Your task to perform on an android device: change keyboard looks Image 0: 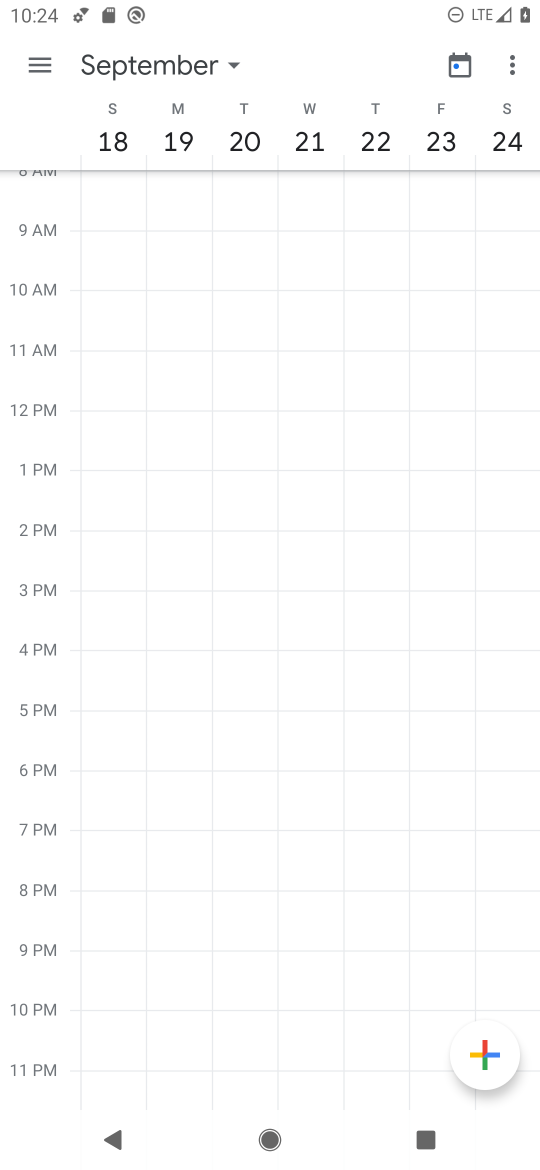
Step 0: press home button
Your task to perform on an android device: change keyboard looks Image 1: 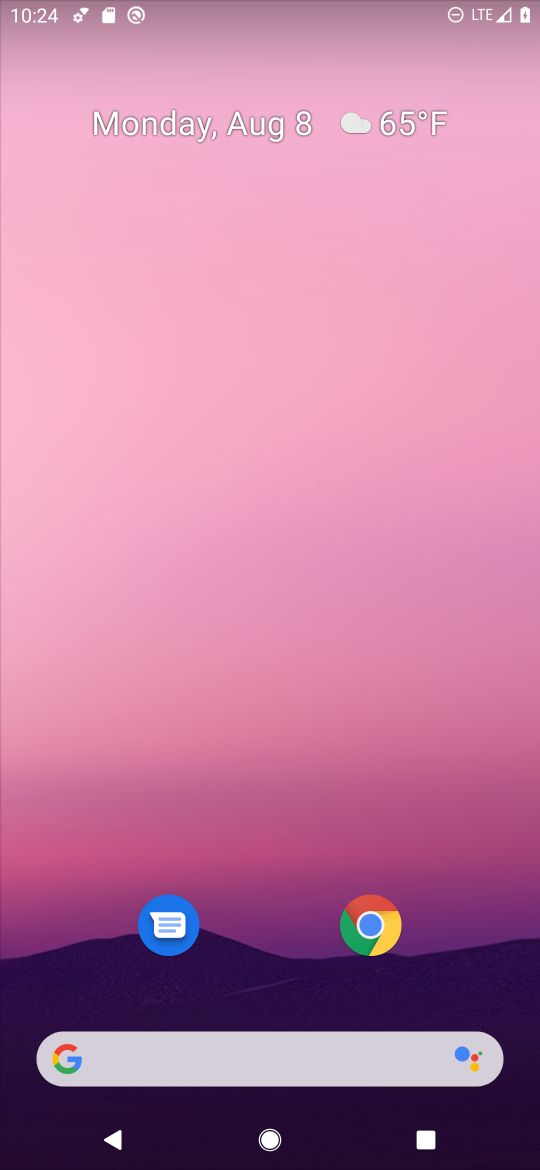
Step 1: drag from (278, 984) to (243, 133)
Your task to perform on an android device: change keyboard looks Image 2: 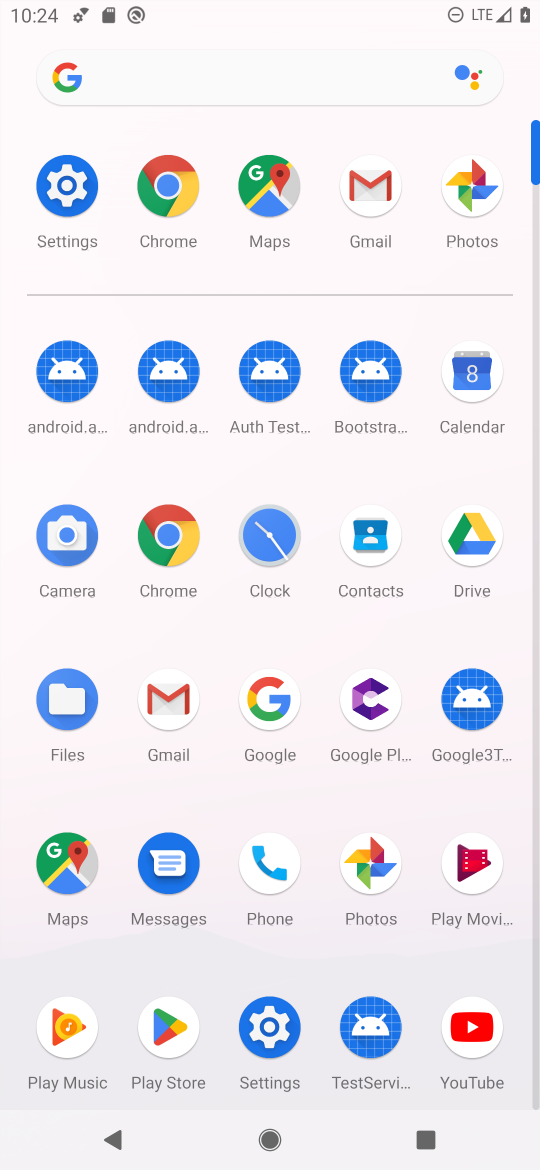
Step 2: click (270, 1023)
Your task to perform on an android device: change keyboard looks Image 3: 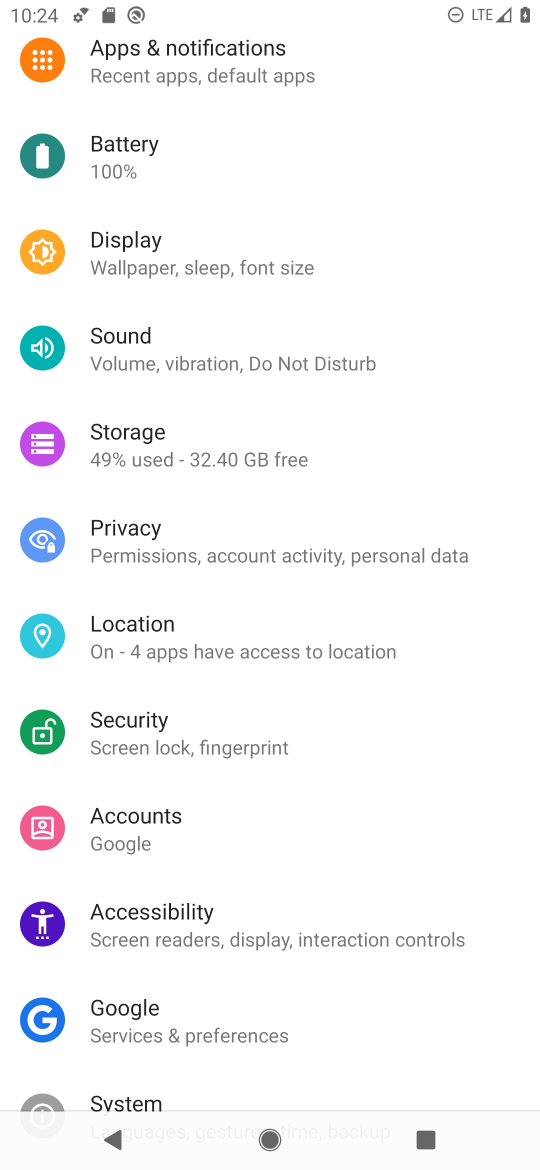
Step 3: drag from (194, 1059) to (279, 403)
Your task to perform on an android device: change keyboard looks Image 4: 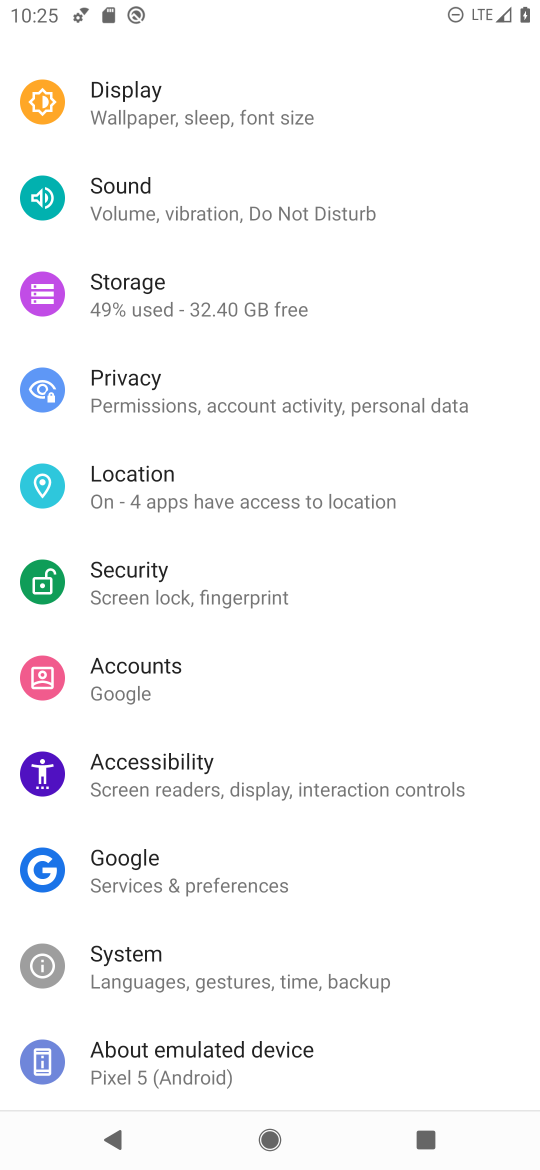
Step 4: click (181, 980)
Your task to perform on an android device: change keyboard looks Image 5: 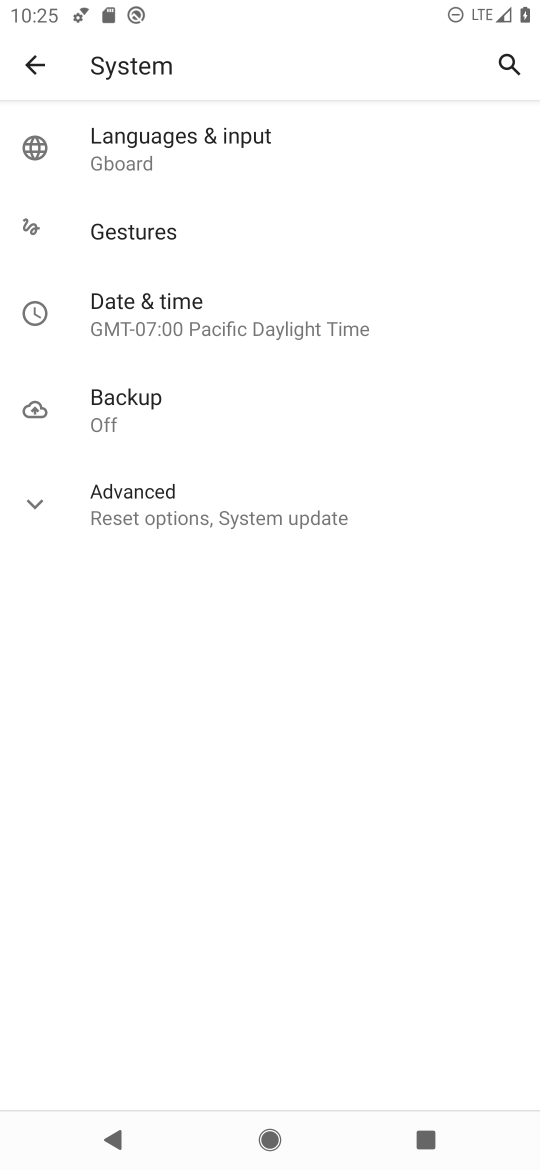
Step 5: click (164, 157)
Your task to perform on an android device: change keyboard looks Image 6: 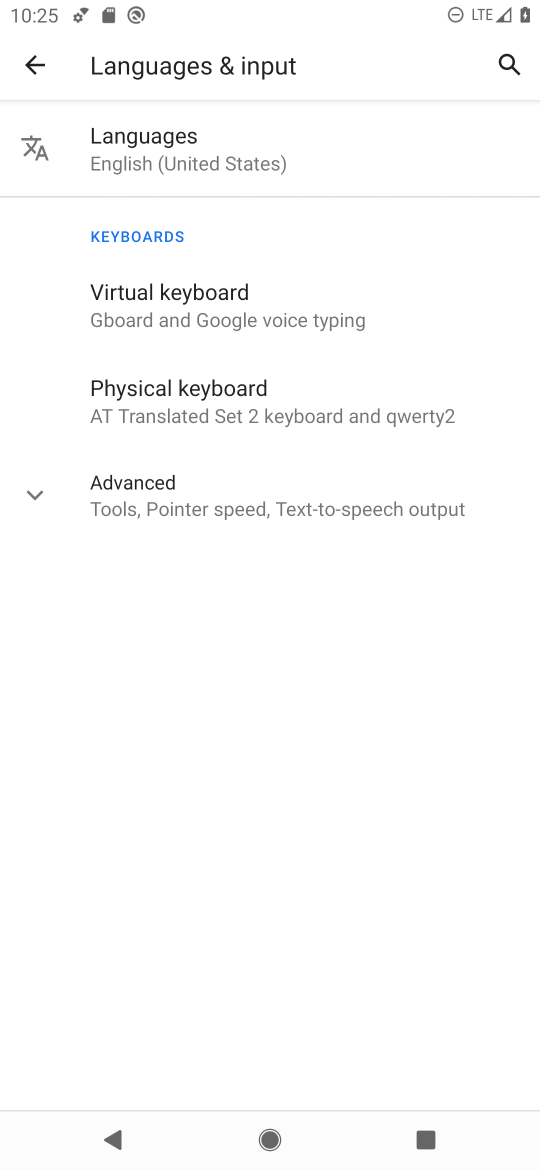
Step 6: click (163, 296)
Your task to perform on an android device: change keyboard looks Image 7: 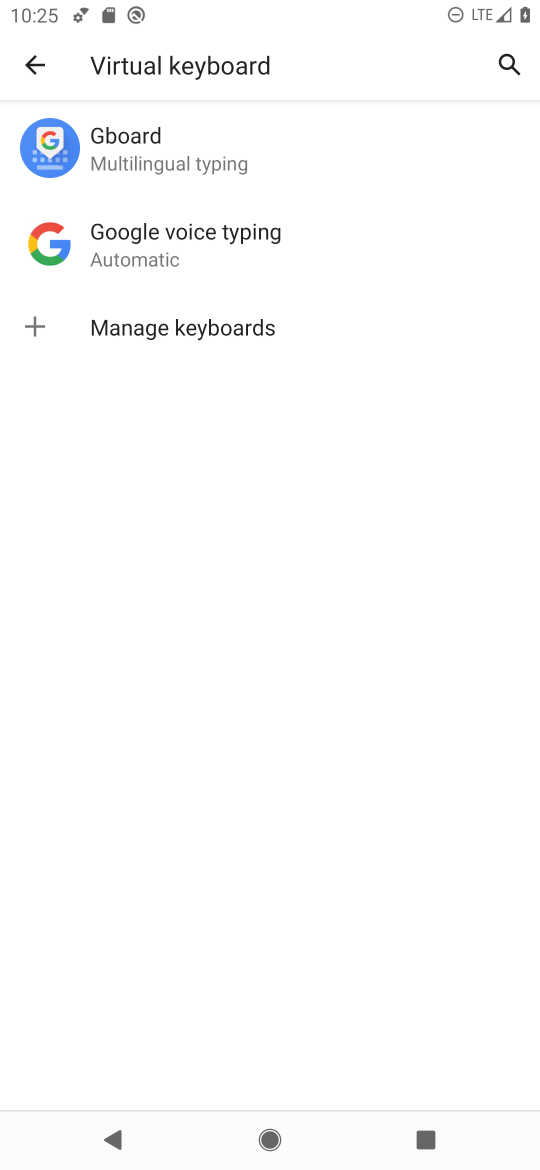
Step 7: click (145, 144)
Your task to perform on an android device: change keyboard looks Image 8: 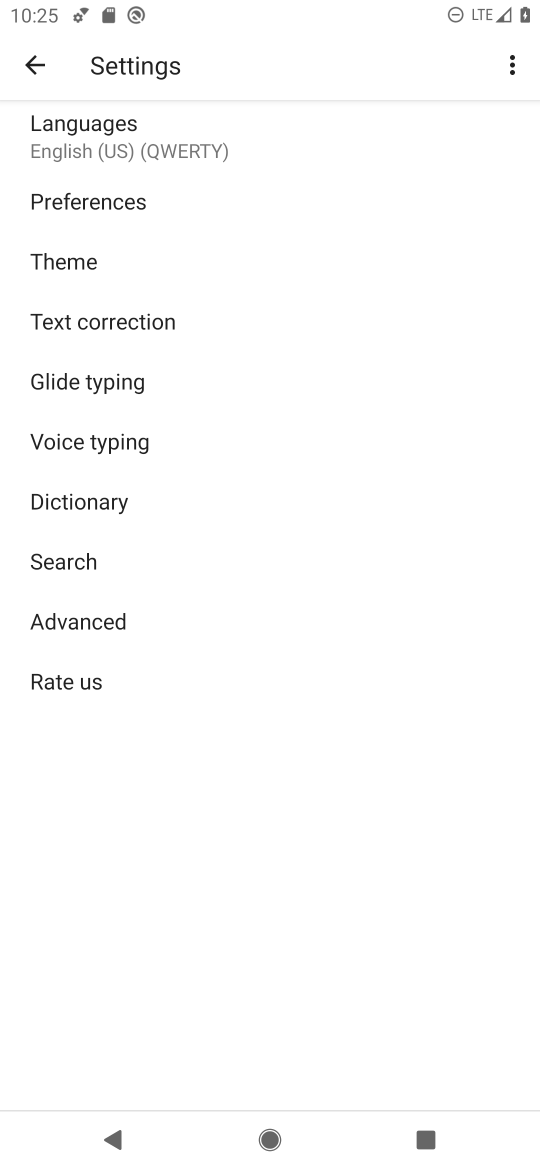
Step 8: click (49, 258)
Your task to perform on an android device: change keyboard looks Image 9: 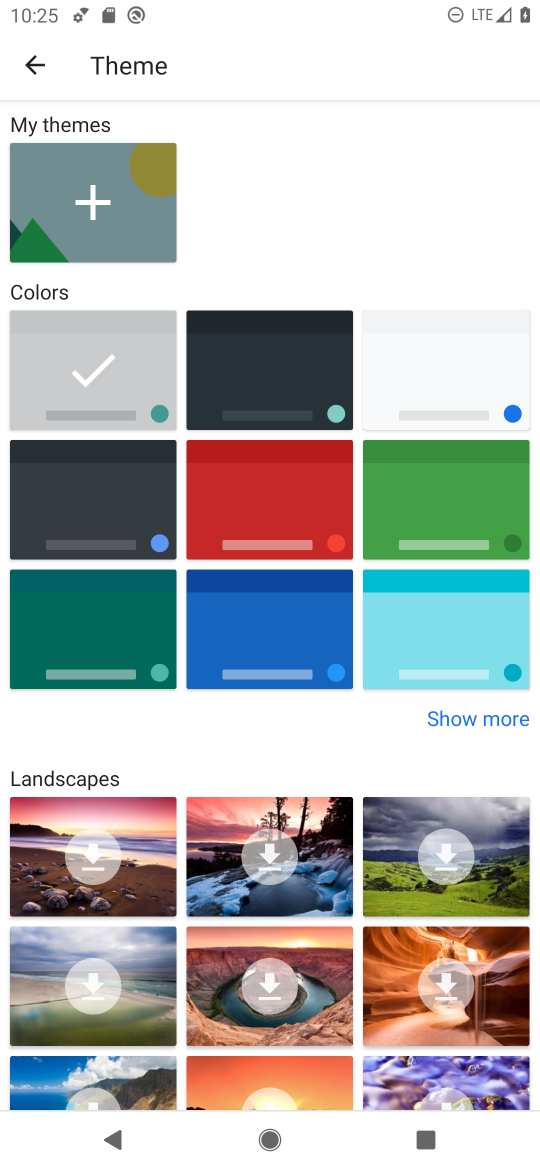
Step 9: click (496, 378)
Your task to perform on an android device: change keyboard looks Image 10: 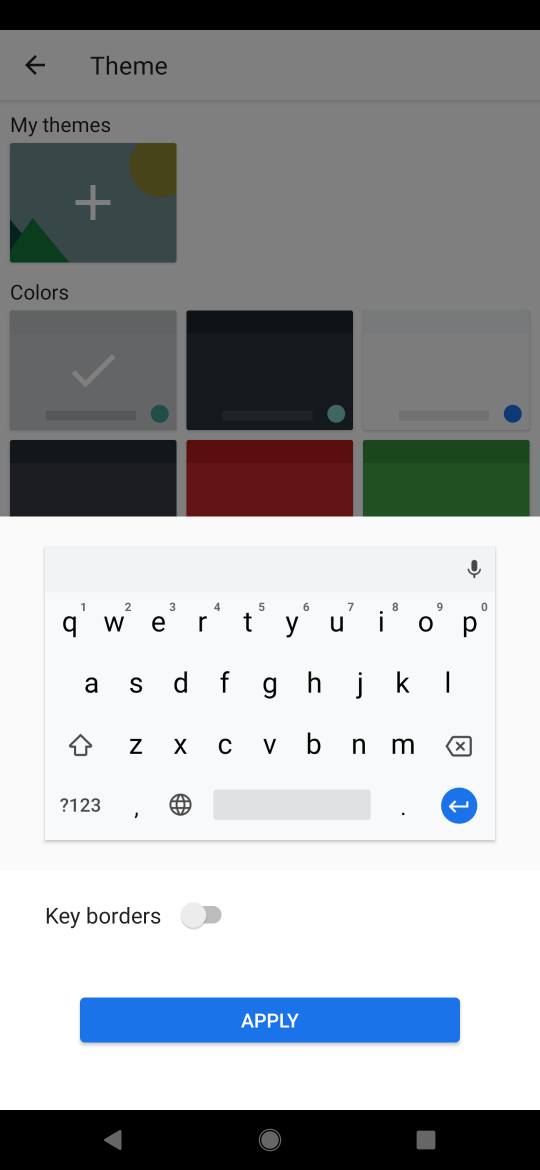
Step 10: click (302, 1029)
Your task to perform on an android device: change keyboard looks Image 11: 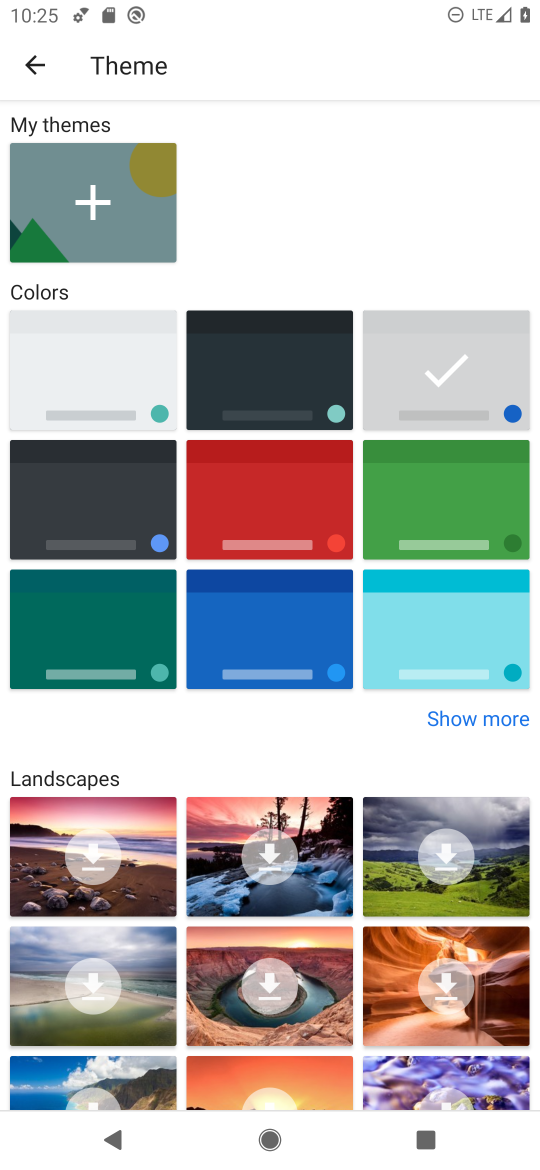
Step 11: task complete